Your task to perform on an android device: Open the phone app and click the voicemail tab. Image 0: 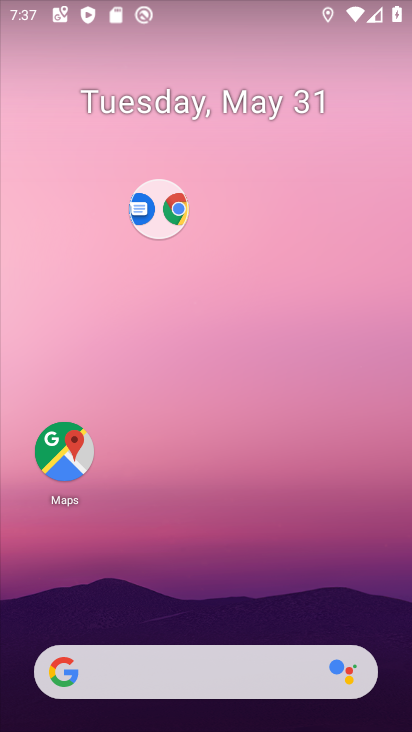
Step 0: drag from (180, 576) to (209, 279)
Your task to perform on an android device: Open the phone app and click the voicemail tab. Image 1: 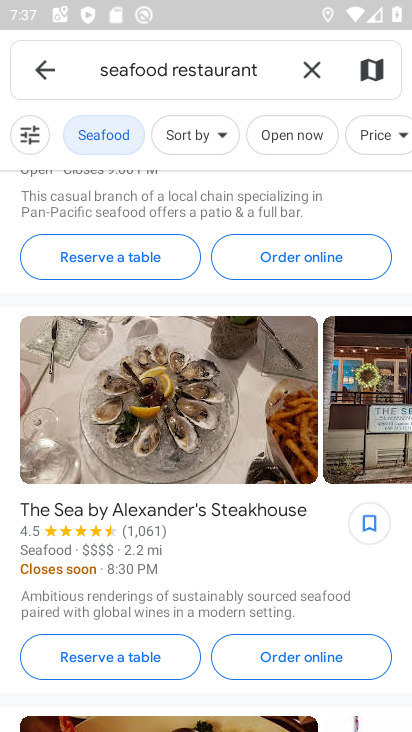
Step 1: press home button
Your task to perform on an android device: Open the phone app and click the voicemail tab. Image 2: 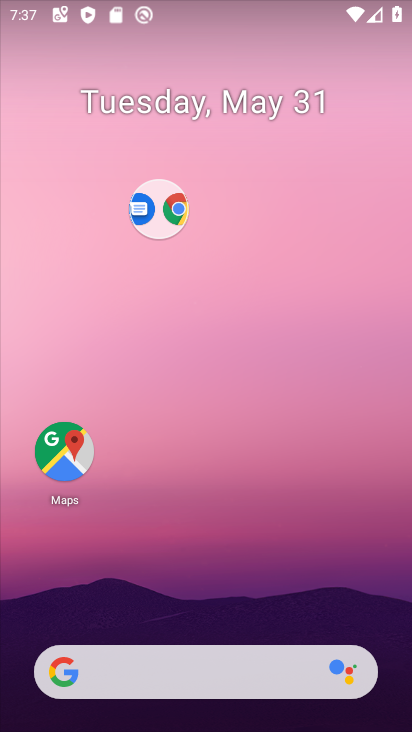
Step 2: drag from (183, 607) to (203, 210)
Your task to perform on an android device: Open the phone app and click the voicemail tab. Image 3: 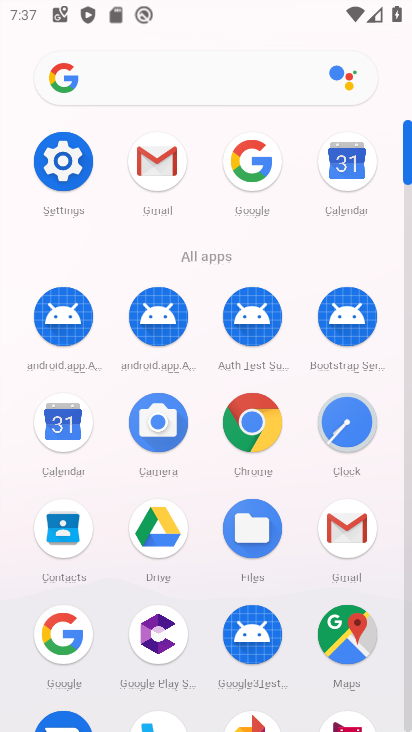
Step 3: click (254, 418)
Your task to perform on an android device: Open the phone app and click the voicemail tab. Image 4: 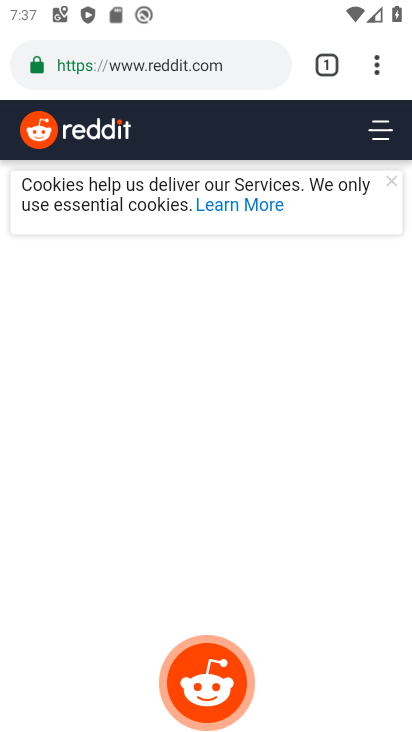
Step 4: press back button
Your task to perform on an android device: Open the phone app and click the voicemail tab. Image 5: 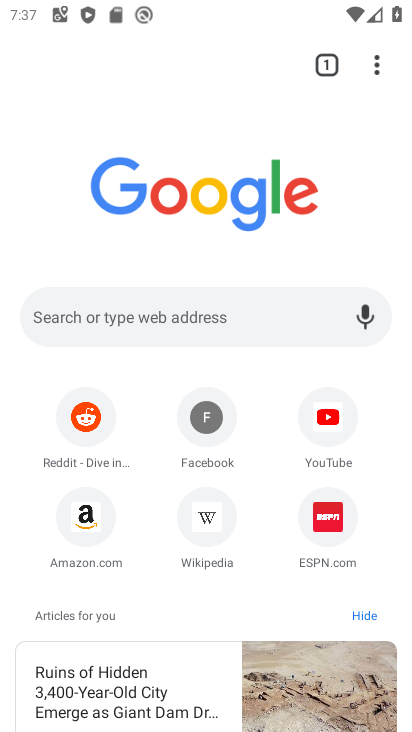
Step 5: press back button
Your task to perform on an android device: Open the phone app and click the voicemail tab. Image 6: 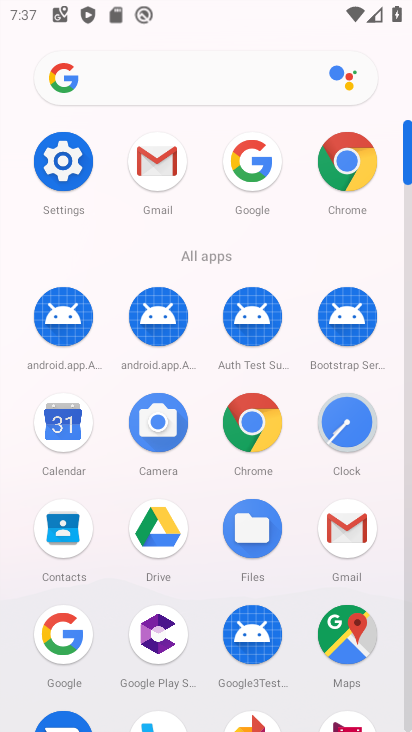
Step 6: drag from (145, 643) to (164, 378)
Your task to perform on an android device: Open the phone app and click the voicemail tab. Image 7: 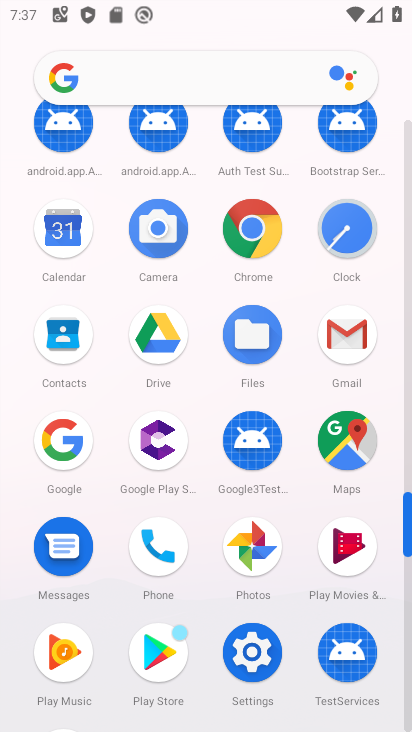
Step 7: click (182, 555)
Your task to perform on an android device: Open the phone app and click the voicemail tab. Image 8: 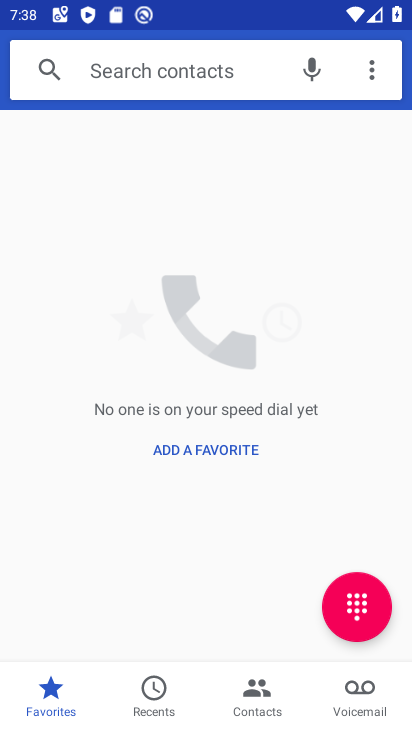
Step 8: click (326, 677)
Your task to perform on an android device: Open the phone app and click the voicemail tab. Image 9: 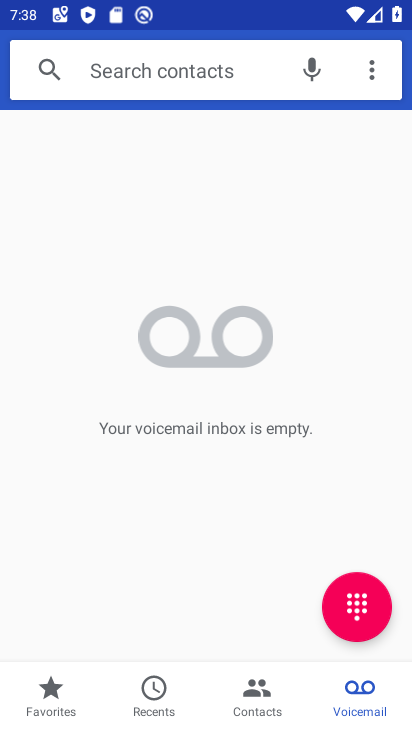
Step 9: task complete